Your task to perform on an android device: clear all cookies in the chrome app Image 0: 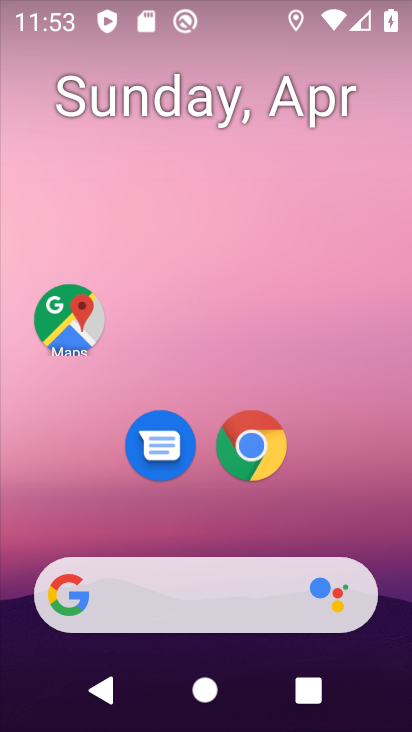
Step 0: drag from (360, 553) to (291, 99)
Your task to perform on an android device: clear all cookies in the chrome app Image 1: 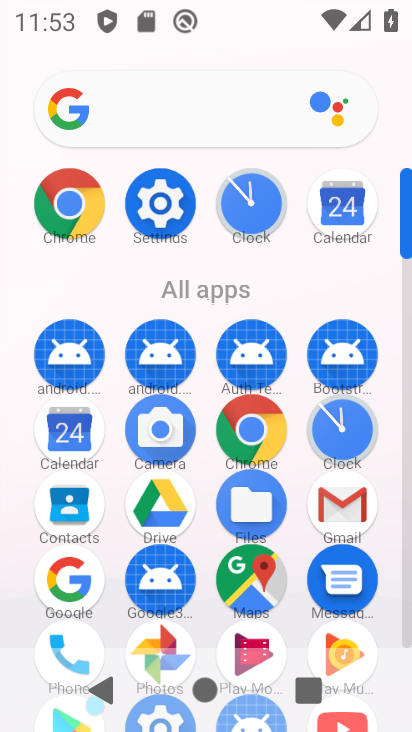
Step 1: click (75, 251)
Your task to perform on an android device: clear all cookies in the chrome app Image 2: 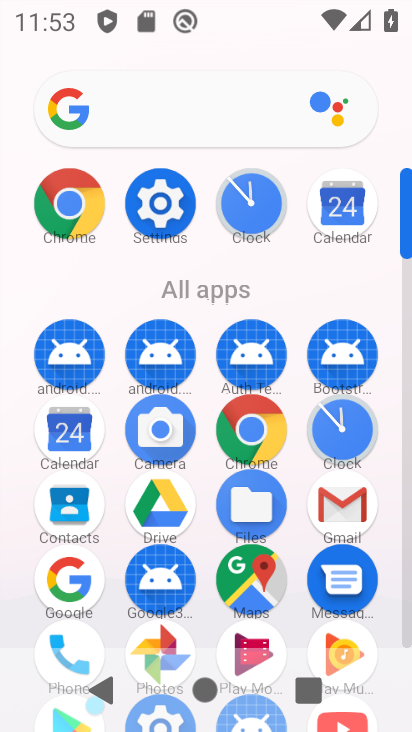
Step 2: click (75, 214)
Your task to perform on an android device: clear all cookies in the chrome app Image 3: 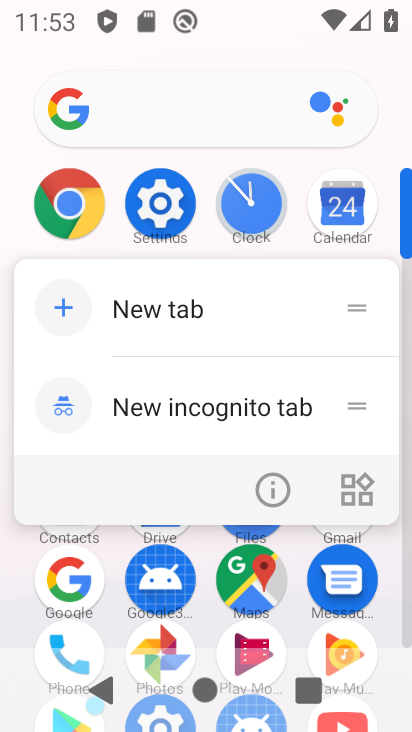
Step 3: click (89, 206)
Your task to perform on an android device: clear all cookies in the chrome app Image 4: 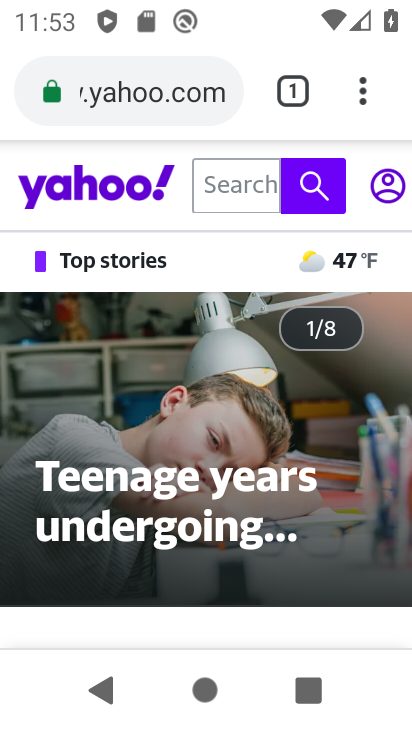
Step 4: click (359, 123)
Your task to perform on an android device: clear all cookies in the chrome app Image 5: 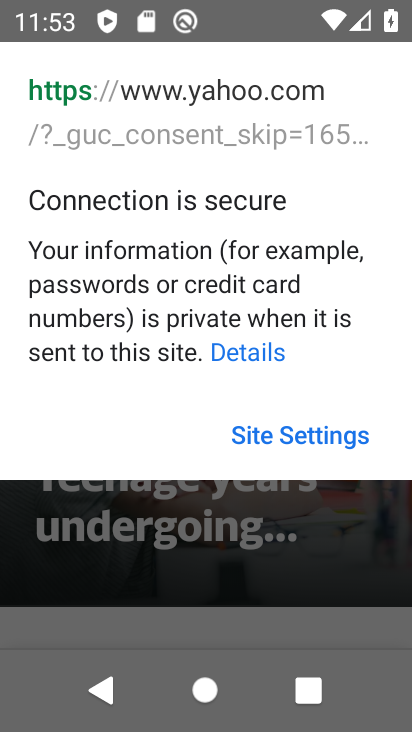
Step 5: click (251, 559)
Your task to perform on an android device: clear all cookies in the chrome app Image 6: 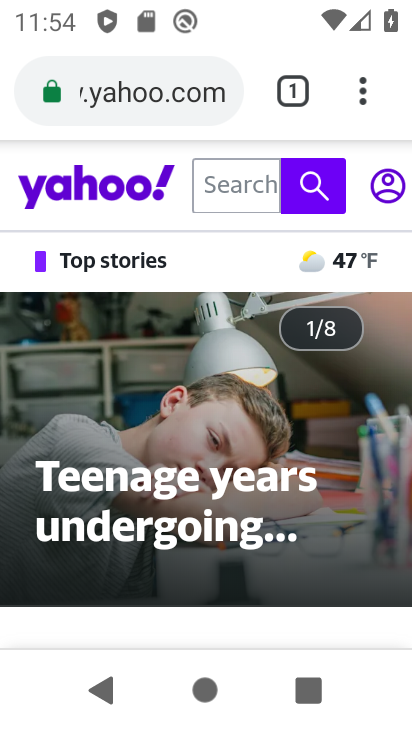
Step 6: drag from (166, 550) to (168, 473)
Your task to perform on an android device: clear all cookies in the chrome app Image 7: 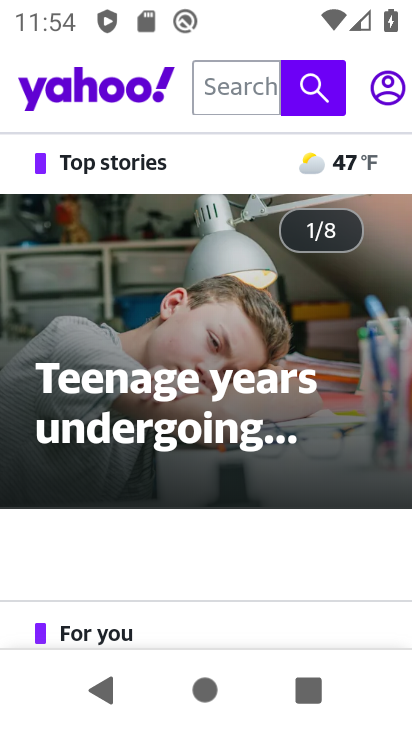
Step 7: drag from (280, 384) to (267, 684)
Your task to perform on an android device: clear all cookies in the chrome app Image 8: 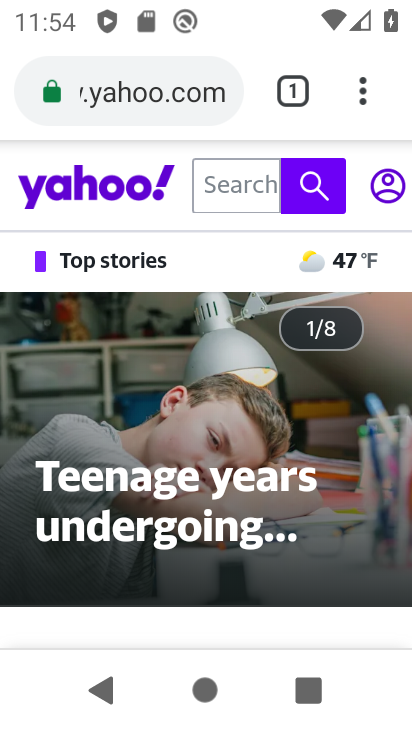
Step 8: click (372, 103)
Your task to perform on an android device: clear all cookies in the chrome app Image 9: 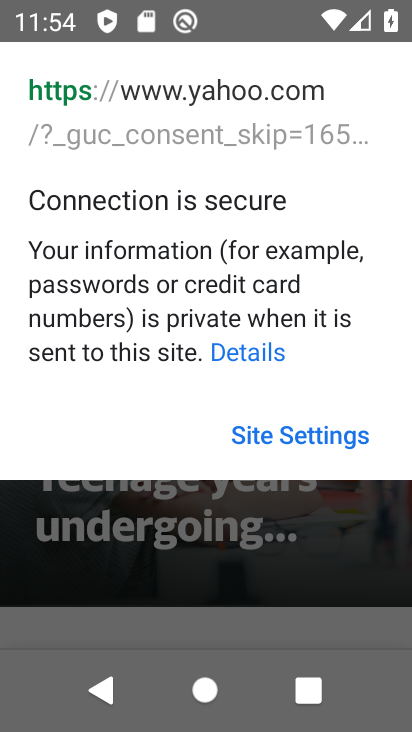
Step 9: click (292, 525)
Your task to perform on an android device: clear all cookies in the chrome app Image 10: 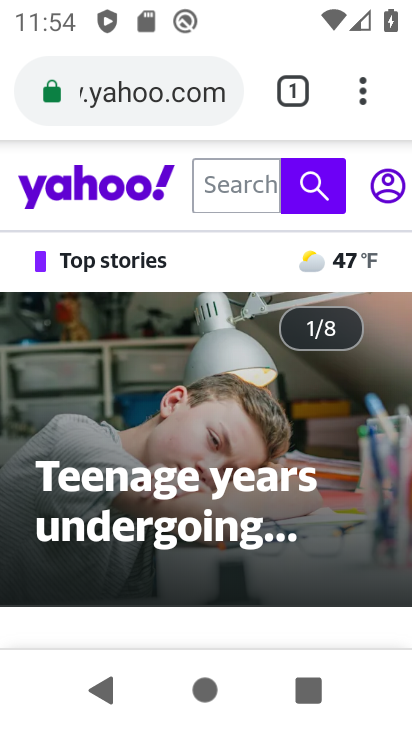
Step 10: click (367, 118)
Your task to perform on an android device: clear all cookies in the chrome app Image 11: 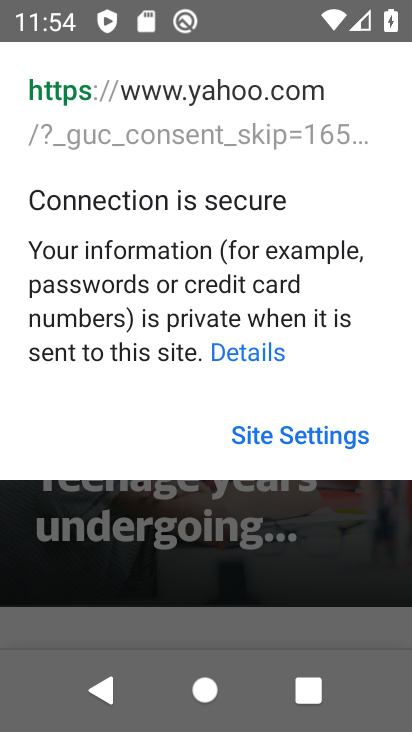
Step 11: click (303, 566)
Your task to perform on an android device: clear all cookies in the chrome app Image 12: 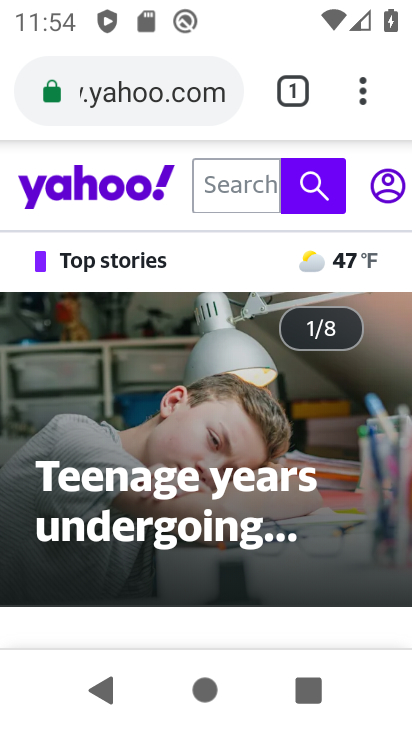
Step 12: click (365, 115)
Your task to perform on an android device: clear all cookies in the chrome app Image 13: 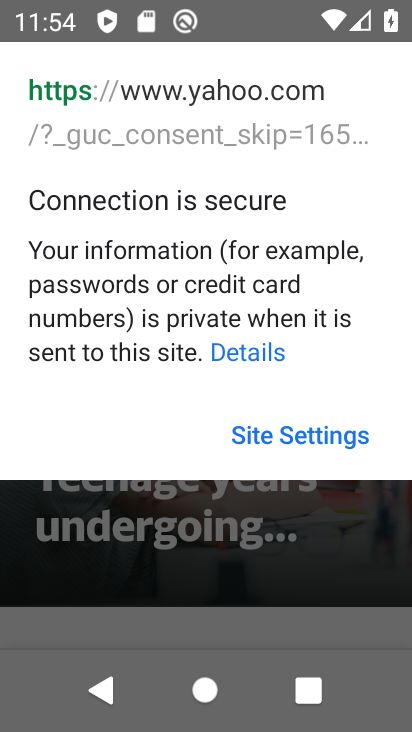
Step 13: click (219, 660)
Your task to perform on an android device: clear all cookies in the chrome app Image 14: 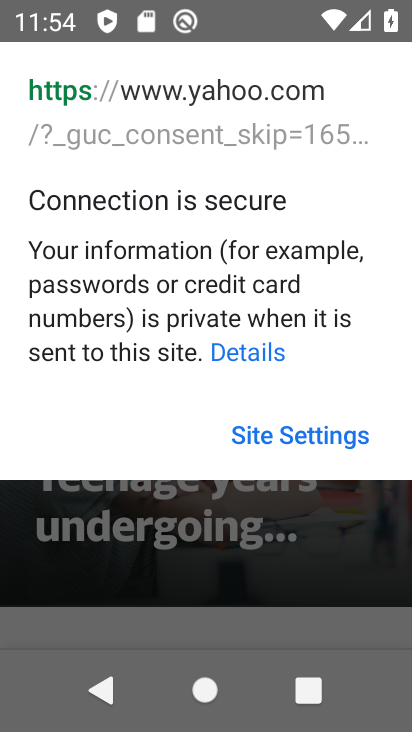
Step 14: click (287, 543)
Your task to perform on an android device: clear all cookies in the chrome app Image 15: 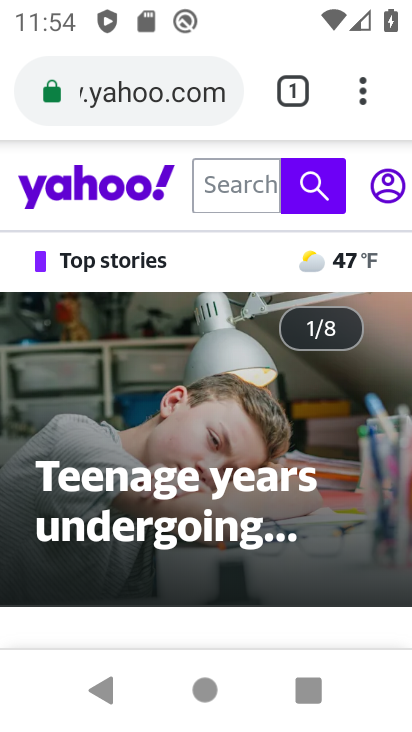
Step 15: click (348, 109)
Your task to perform on an android device: clear all cookies in the chrome app Image 16: 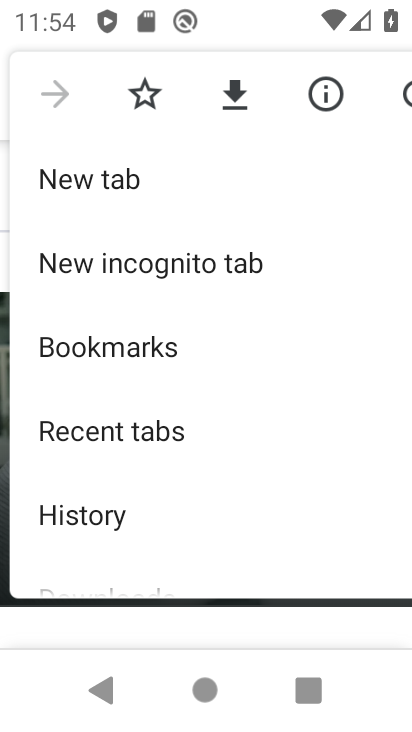
Step 16: drag from (200, 473) to (157, 16)
Your task to perform on an android device: clear all cookies in the chrome app Image 17: 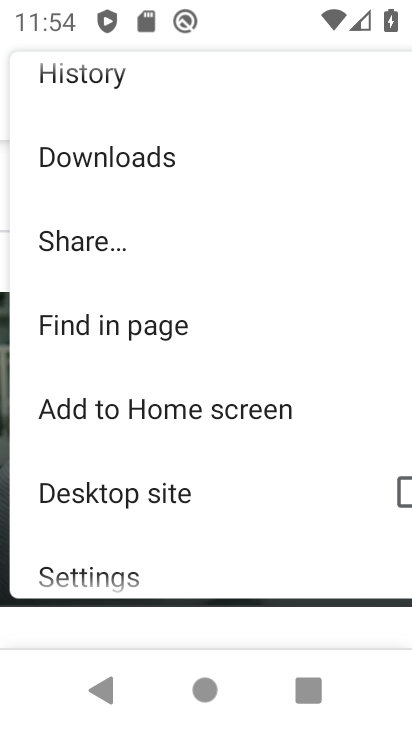
Step 17: click (122, 558)
Your task to perform on an android device: clear all cookies in the chrome app Image 18: 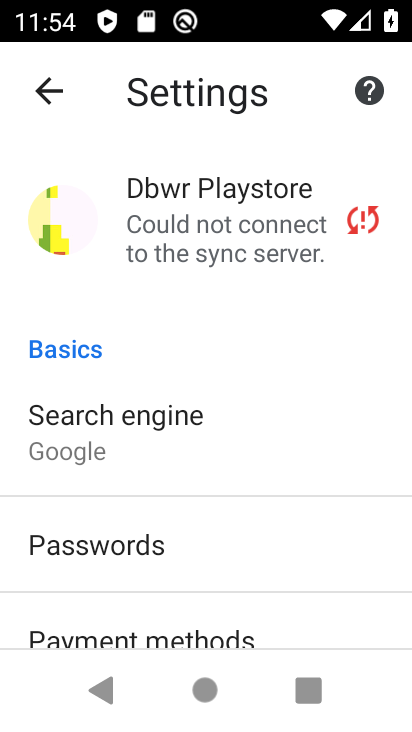
Step 18: drag from (204, 564) to (191, 214)
Your task to perform on an android device: clear all cookies in the chrome app Image 19: 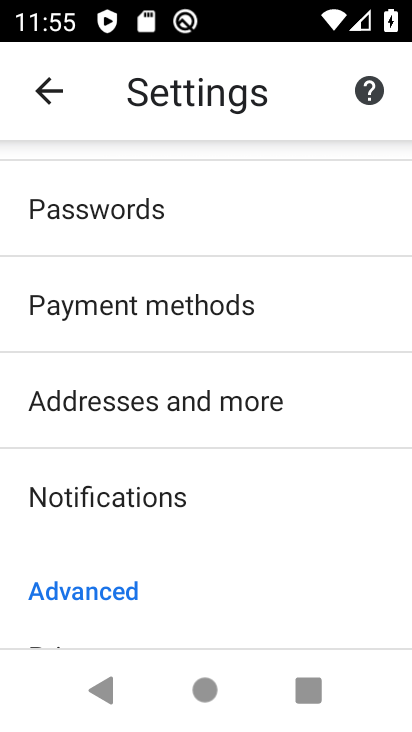
Step 19: drag from (255, 606) to (204, 258)
Your task to perform on an android device: clear all cookies in the chrome app Image 20: 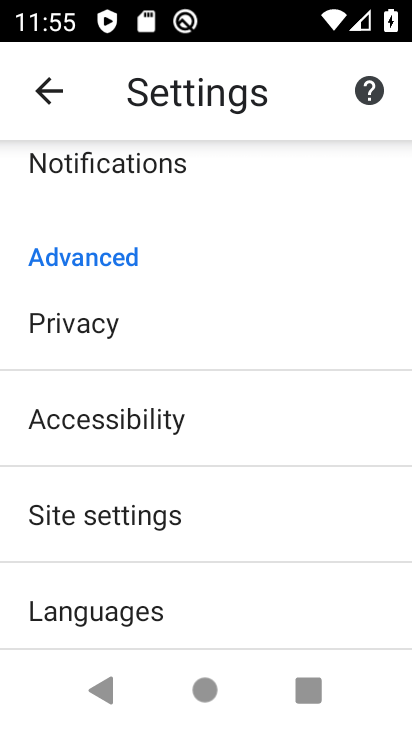
Step 20: click (96, 318)
Your task to perform on an android device: clear all cookies in the chrome app Image 21: 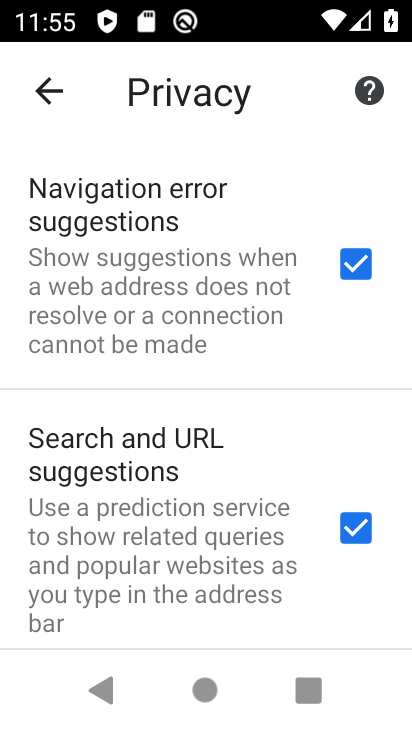
Step 21: drag from (154, 581) to (117, 130)
Your task to perform on an android device: clear all cookies in the chrome app Image 22: 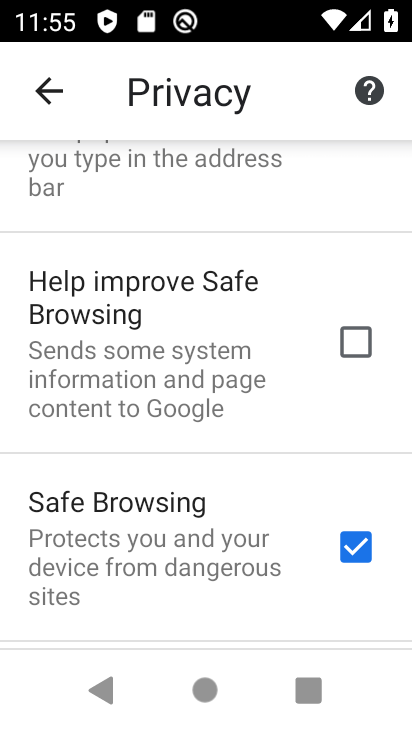
Step 22: drag from (195, 558) to (189, 32)
Your task to perform on an android device: clear all cookies in the chrome app Image 23: 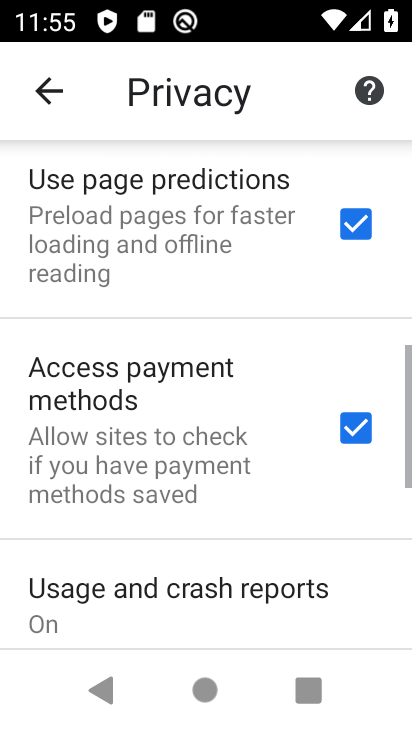
Step 23: drag from (220, 648) to (135, 67)
Your task to perform on an android device: clear all cookies in the chrome app Image 24: 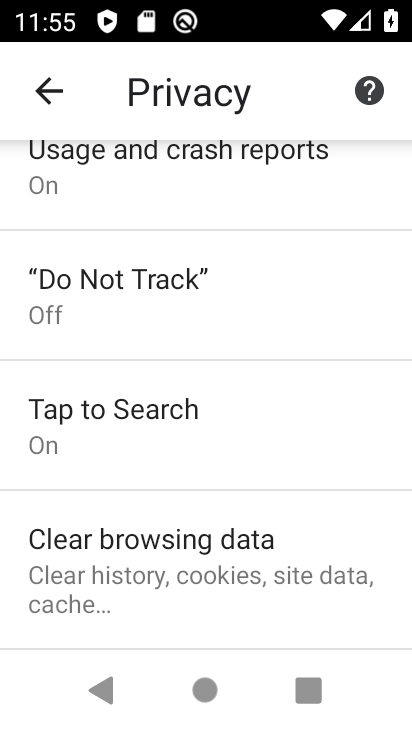
Step 24: click (188, 549)
Your task to perform on an android device: clear all cookies in the chrome app Image 25: 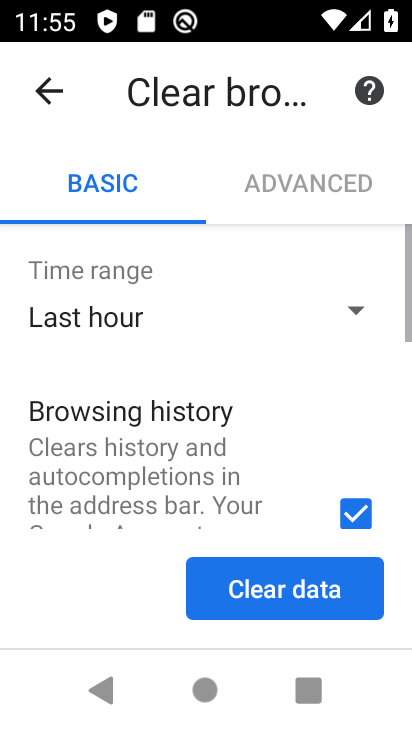
Step 25: drag from (326, 471) to (294, 268)
Your task to perform on an android device: clear all cookies in the chrome app Image 26: 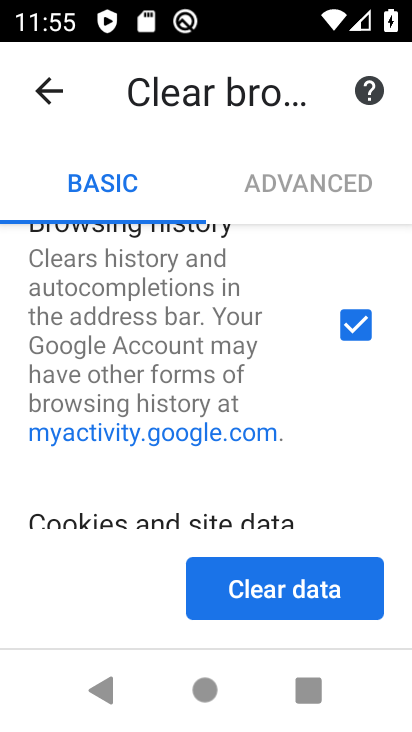
Step 26: click (359, 323)
Your task to perform on an android device: clear all cookies in the chrome app Image 27: 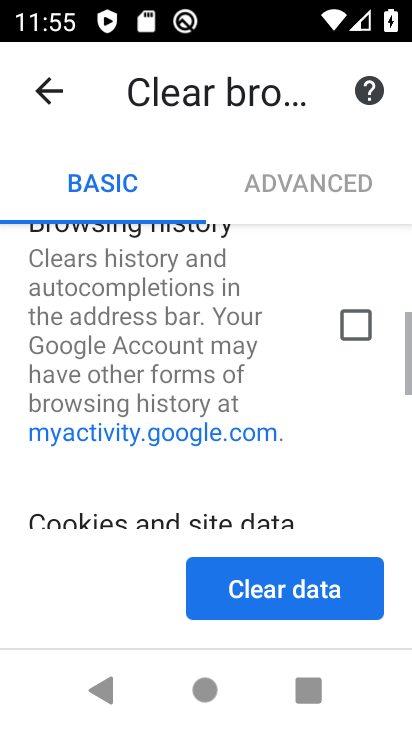
Step 27: drag from (261, 312) to (240, 519)
Your task to perform on an android device: clear all cookies in the chrome app Image 28: 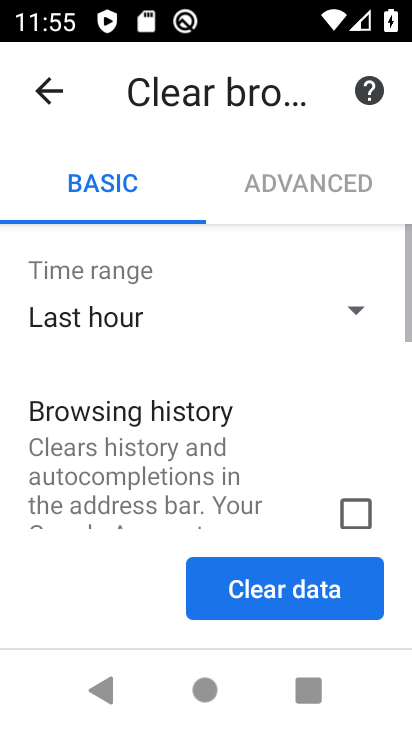
Step 28: click (246, 274)
Your task to perform on an android device: clear all cookies in the chrome app Image 29: 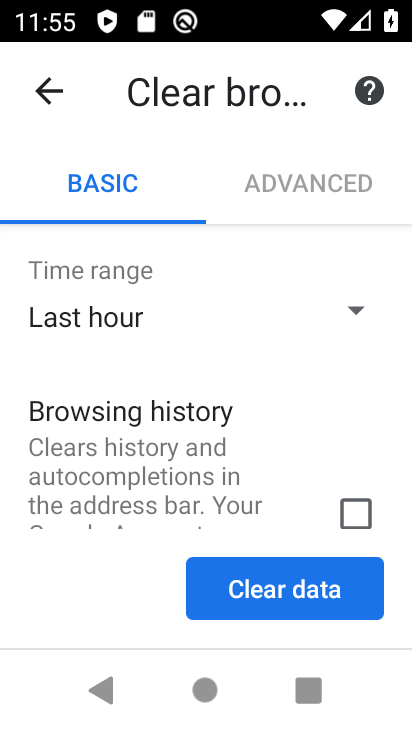
Step 29: click (239, 306)
Your task to perform on an android device: clear all cookies in the chrome app Image 30: 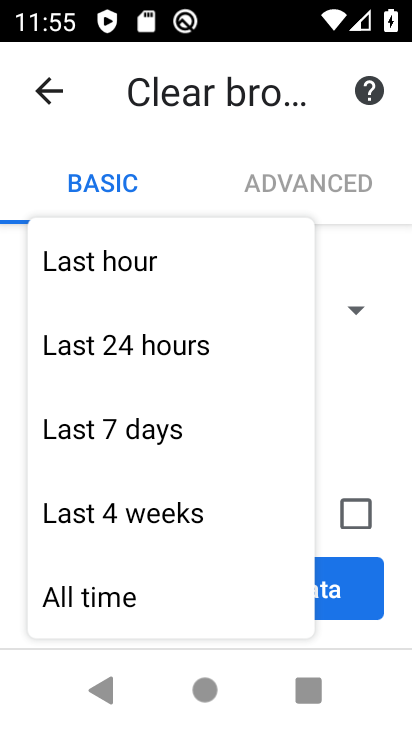
Step 30: click (150, 607)
Your task to perform on an android device: clear all cookies in the chrome app Image 31: 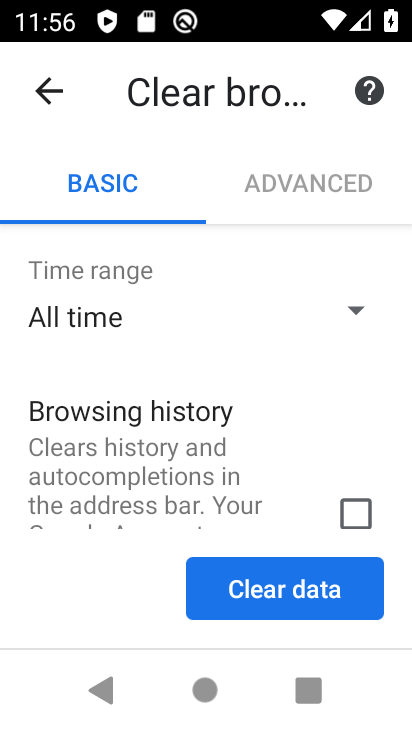
Step 31: drag from (199, 543) to (274, 133)
Your task to perform on an android device: clear all cookies in the chrome app Image 32: 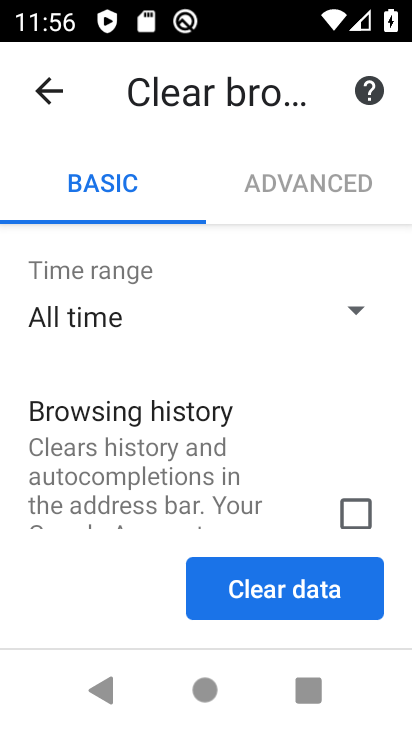
Step 32: drag from (263, 482) to (220, 109)
Your task to perform on an android device: clear all cookies in the chrome app Image 33: 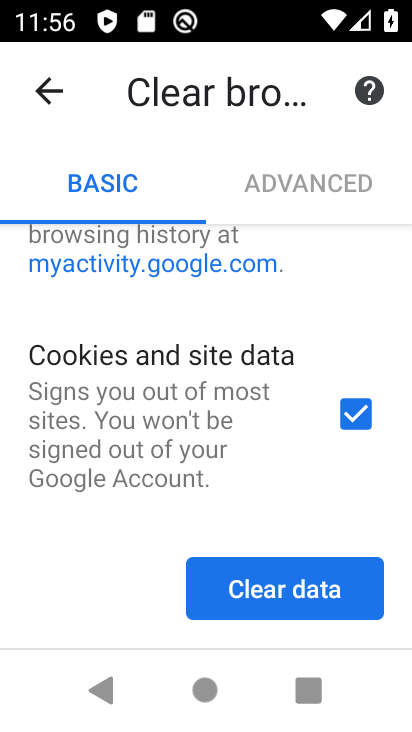
Step 33: drag from (275, 483) to (233, 144)
Your task to perform on an android device: clear all cookies in the chrome app Image 34: 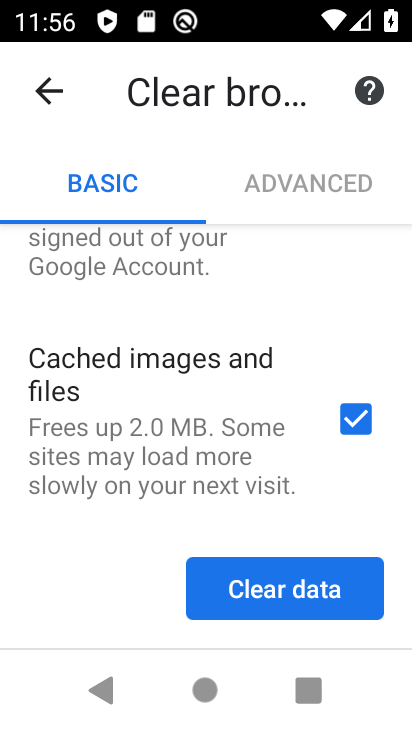
Step 34: click (366, 423)
Your task to perform on an android device: clear all cookies in the chrome app Image 35: 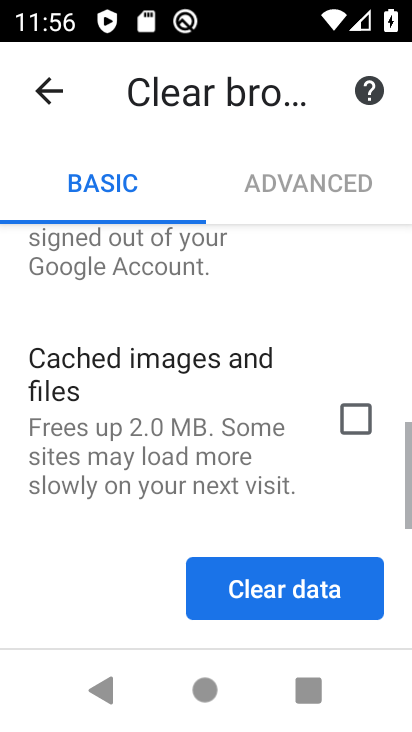
Step 35: click (324, 604)
Your task to perform on an android device: clear all cookies in the chrome app Image 36: 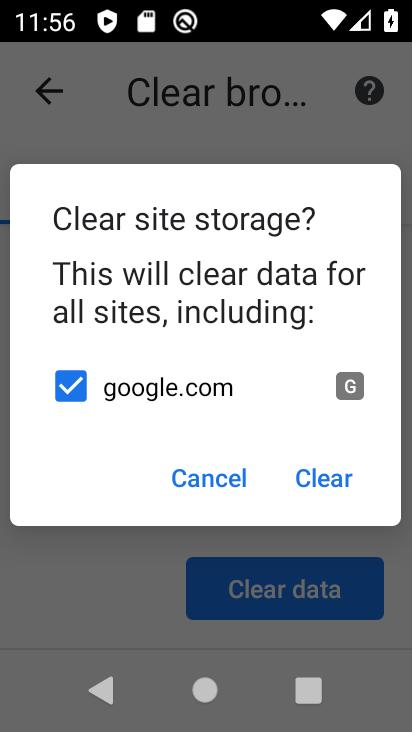
Step 36: click (311, 478)
Your task to perform on an android device: clear all cookies in the chrome app Image 37: 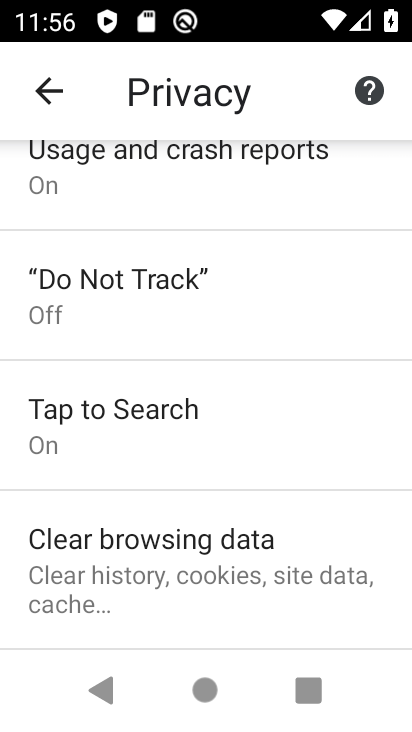
Step 37: task complete